Your task to perform on an android device: What's the weather going to be this weekend? Image 0: 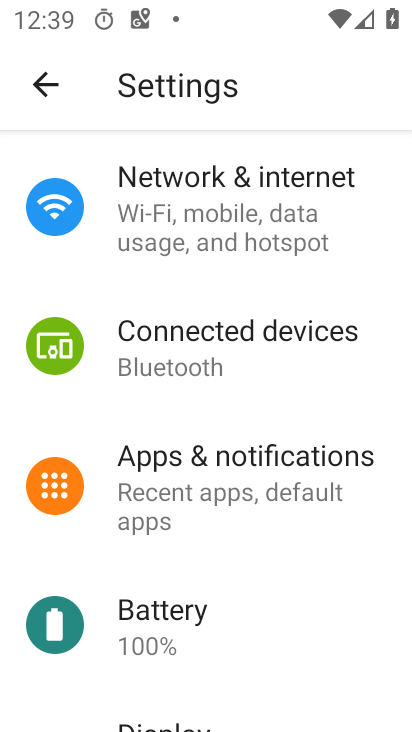
Step 0: press home button
Your task to perform on an android device: What's the weather going to be this weekend? Image 1: 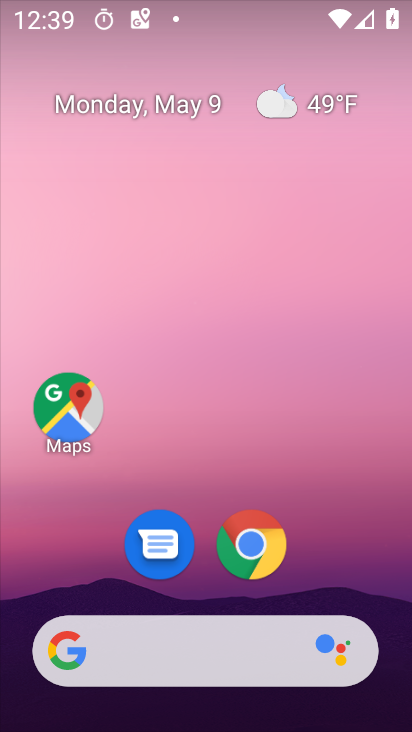
Step 1: drag from (244, 631) to (243, 64)
Your task to perform on an android device: What's the weather going to be this weekend? Image 2: 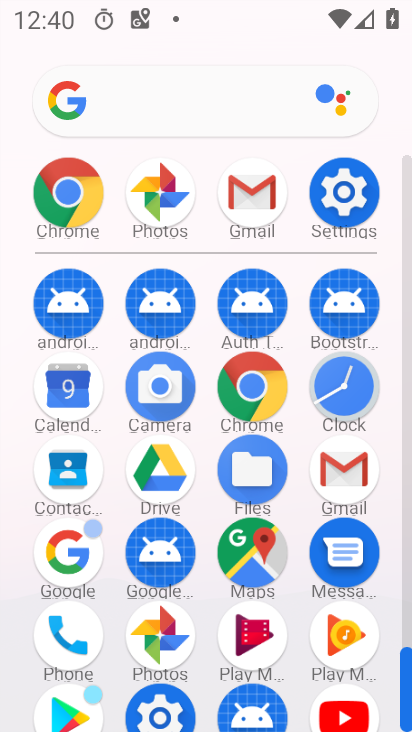
Step 2: click (242, 389)
Your task to perform on an android device: What's the weather going to be this weekend? Image 3: 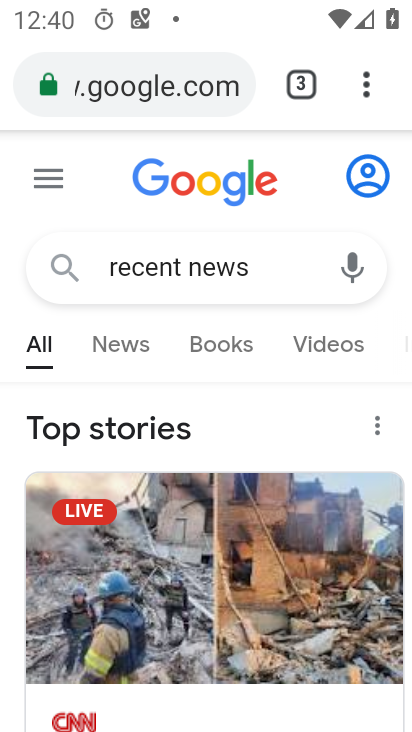
Step 3: click (162, 98)
Your task to perform on an android device: What's the weather going to be this weekend? Image 4: 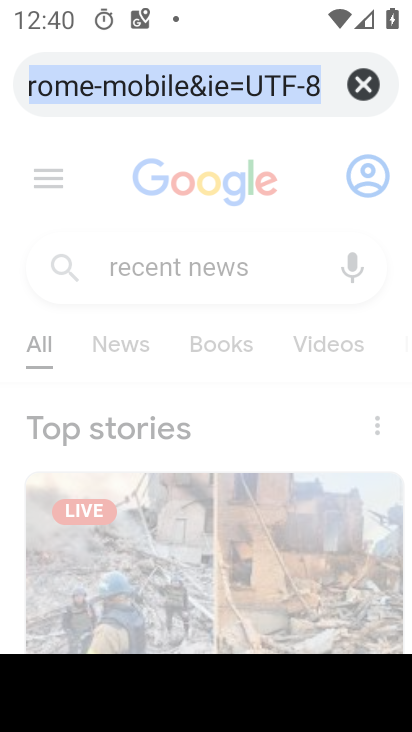
Step 4: click (359, 81)
Your task to perform on an android device: What's the weather going to be this weekend? Image 5: 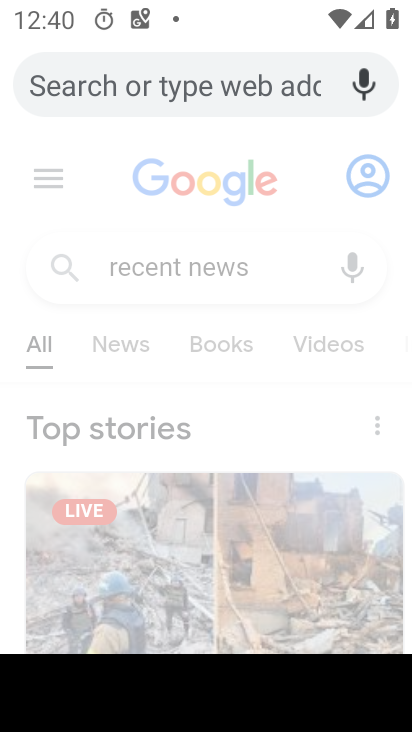
Step 5: type "weather going to be weekend"
Your task to perform on an android device: What's the weather going to be this weekend? Image 6: 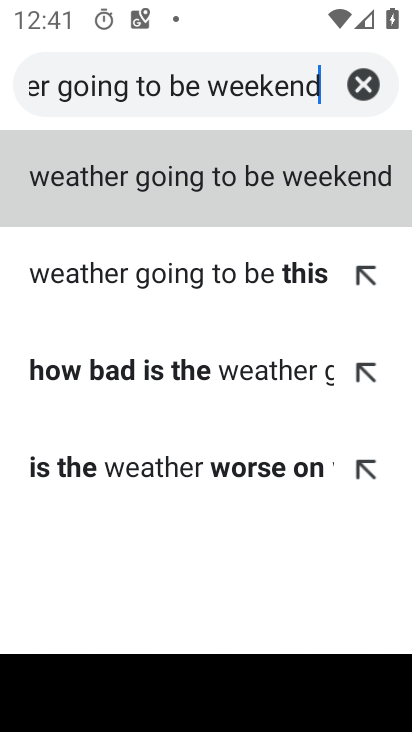
Step 6: click (320, 186)
Your task to perform on an android device: What's the weather going to be this weekend? Image 7: 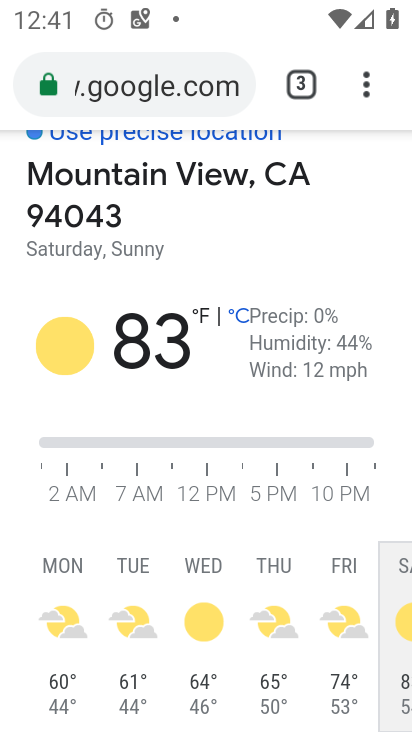
Step 7: task complete